Your task to perform on an android device: toggle notifications settings in the gmail app Image 0: 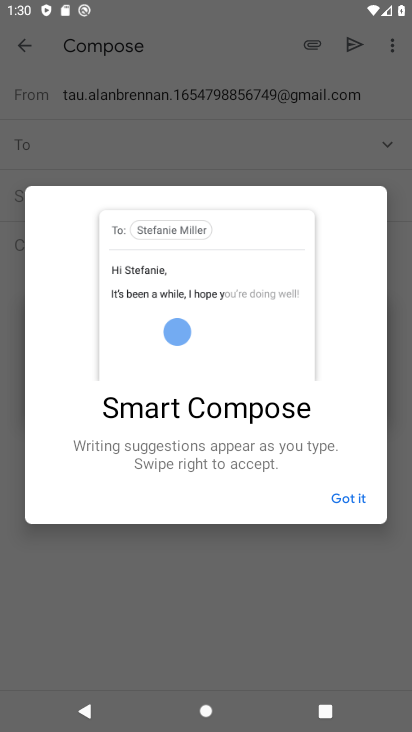
Step 0: drag from (130, 704) to (393, 294)
Your task to perform on an android device: toggle notifications settings in the gmail app Image 1: 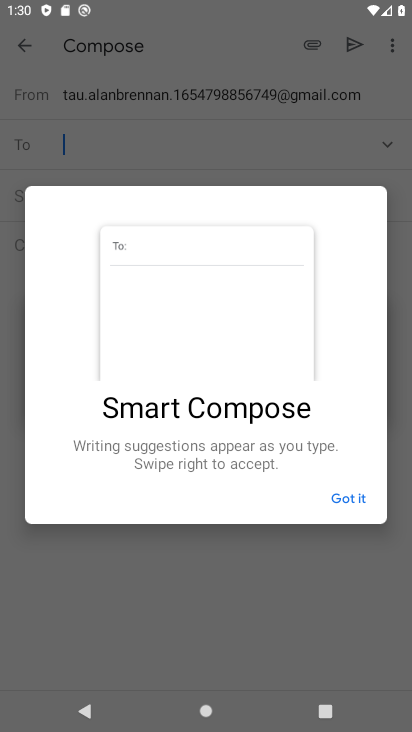
Step 1: press home button
Your task to perform on an android device: toggle notifications settings in the gmail app Image 2: 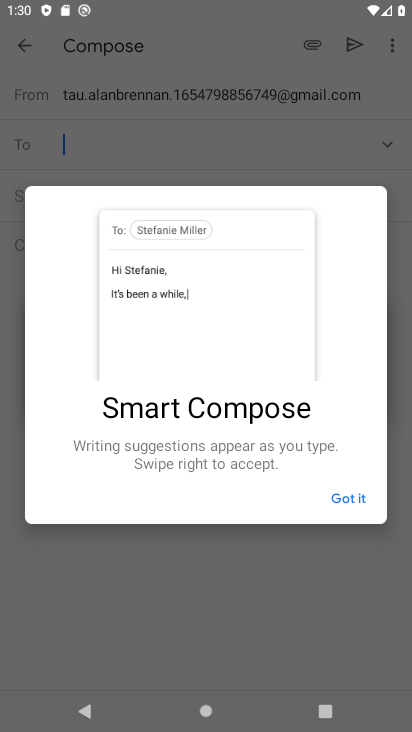
Step 2: drag from (393, 294) to (392, 641)
Your task to perform on an android device: toggle notifications settings in the gmail app Image 3: 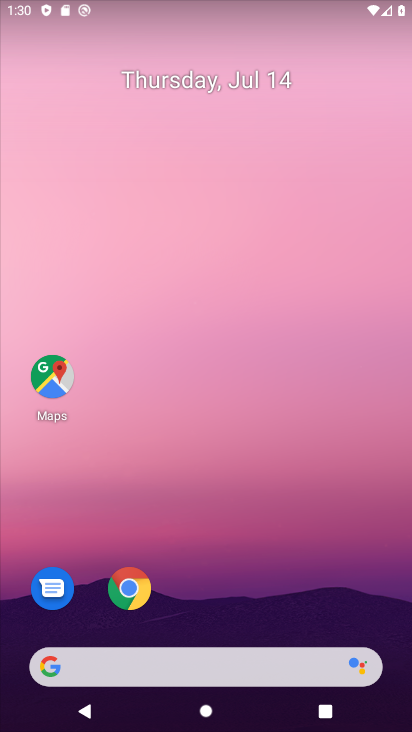
Step 3: drag from (246, 714) to (252, 230)
Your task to perform on an android device: toggle notifications settings in the gmail app Image 4: 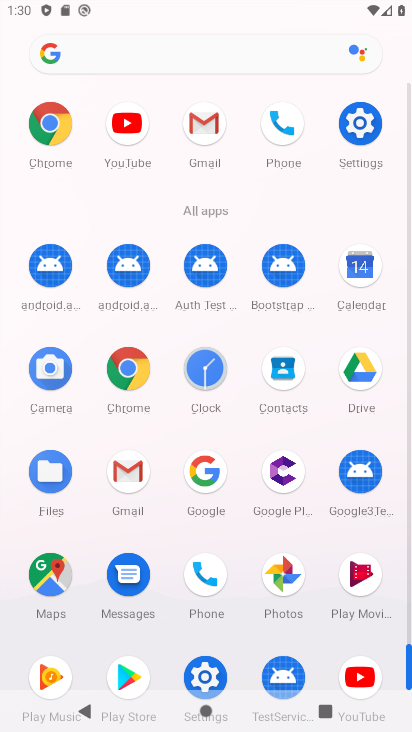
Step 4: click (132, 472)
Your task to perform on an android device: toggle notifications settings in the gmail app Image 5: 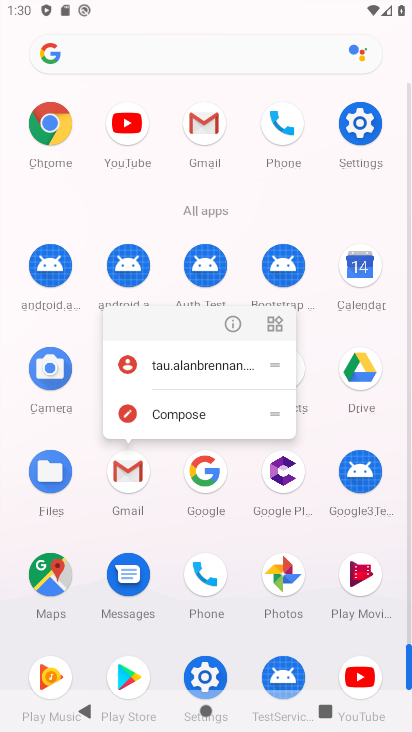
Step 5: click (234, 324)
Your task to perform on an android device: toggle notifications settings in the gmail app Image 6: 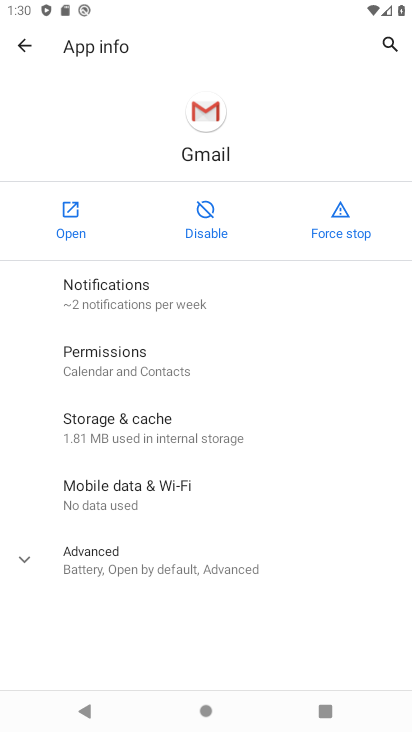
Step 6: click (247, 287)
Your task to perform on an android device: toggle notifications settings in the gmail app Image 7: 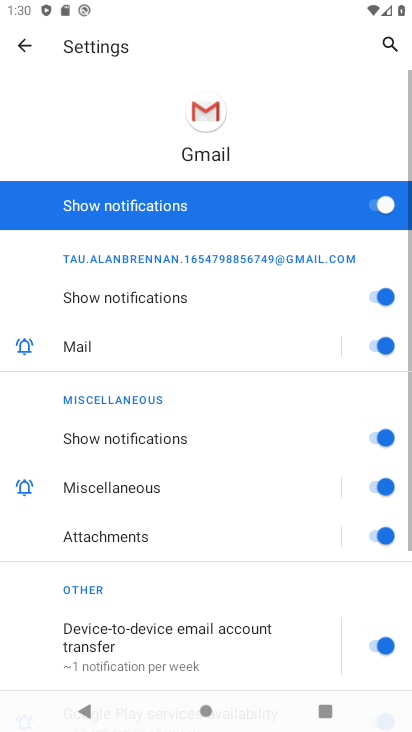
Step 7: click (387, 208)
Your task to perform on an android device: toggle notifications settings in the gmail app Image 8: 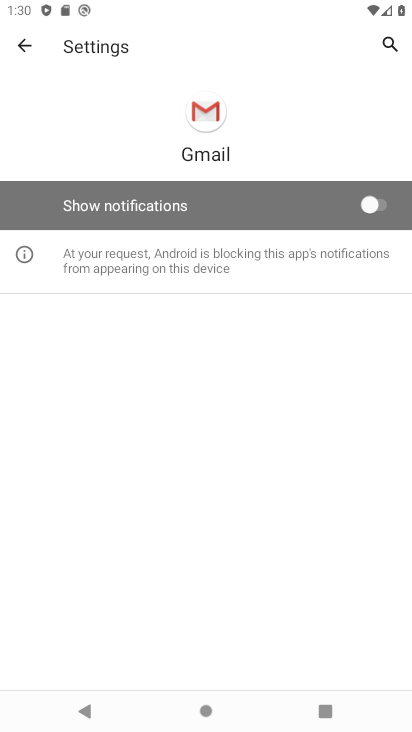
Step 8: task complete